Your task to perform on an android device: Search for vegetarian restaurants on Maps Image 0: 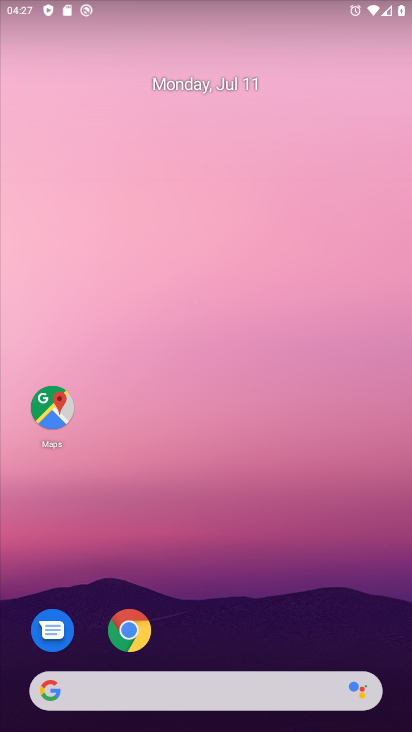
Step 0: click (52, 403)
Your task to perform on an android device: Search for vegetarian restaurants on Maps Image 1: 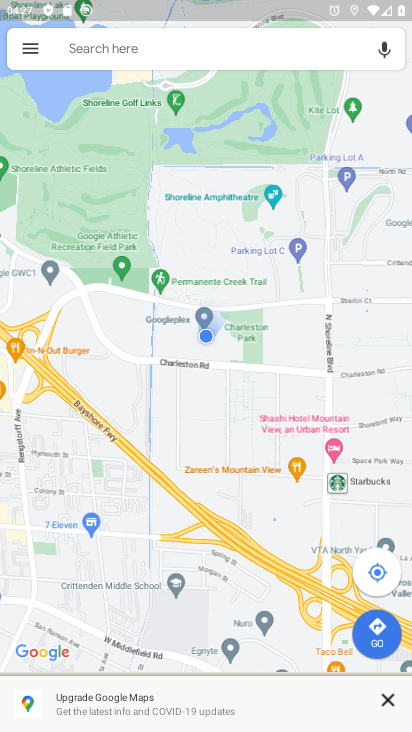
Step 1: click (129, 38)
Your task to perform on an android device: Search for vegetarian restaurants on Maps Image 2: 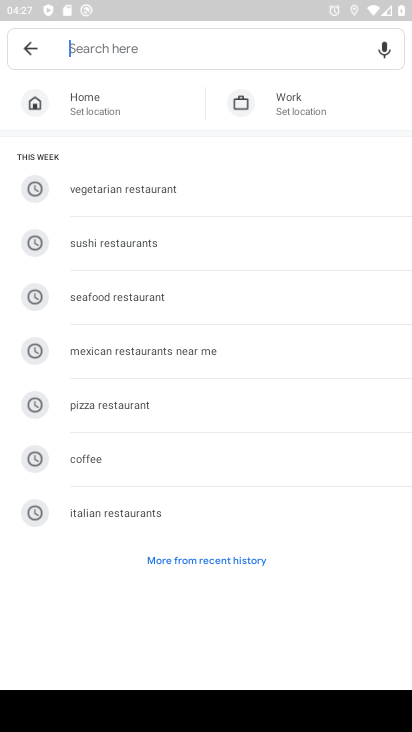
Step 2: click (147, 191)
Your task to perform on an android device: Search for vegetarian restaurants on Maps Image 3: 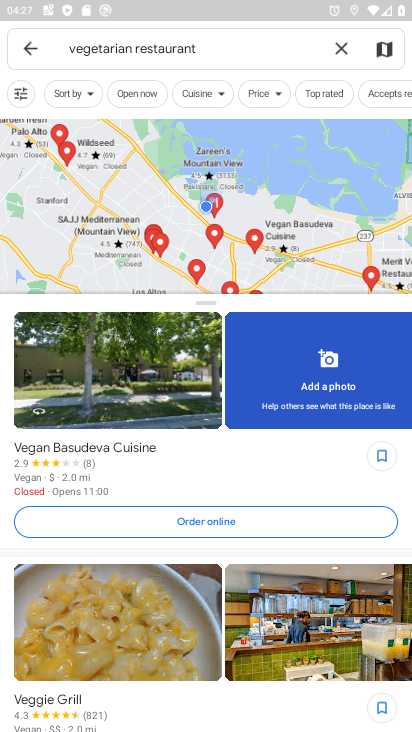
Step 3: task complete